Your task to perform on an android device: When is my next meeting? Image 0: 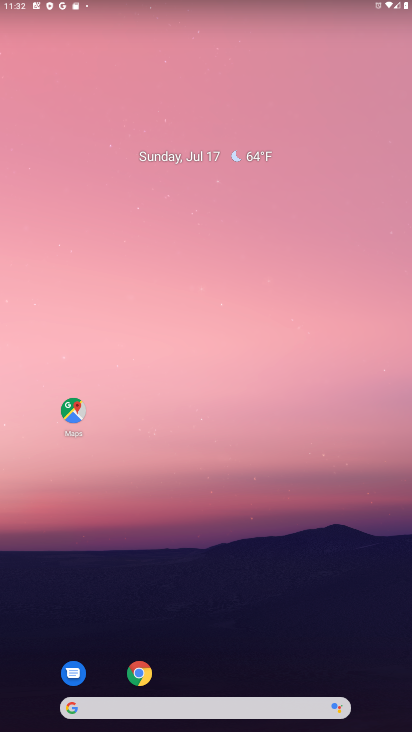
Step 0: drag from (212, 674) to (190, 213)
Your task to perform on an android device: When is my next meeting? Image 1: 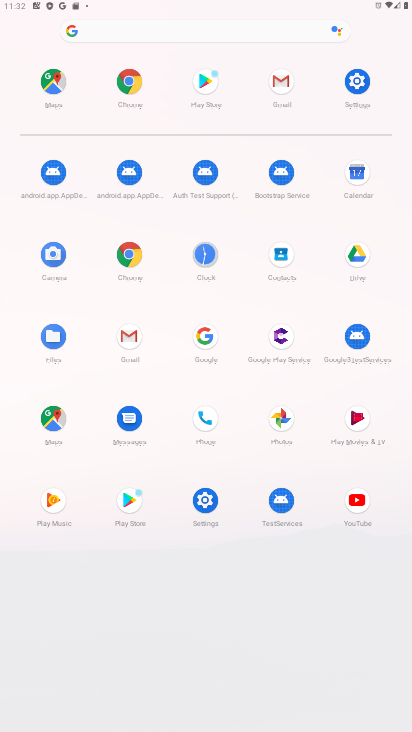
Step 1: click (358, 171)
Your task to perform on an android device: When is my next meeting? Image 2: 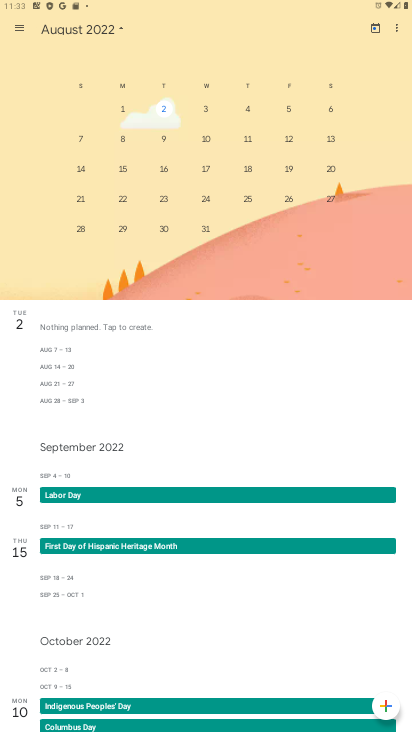
Step 2: drag from (60, 239) to (411, 211)
Your task to perform on an android device: When is my next meeting? Image 3: 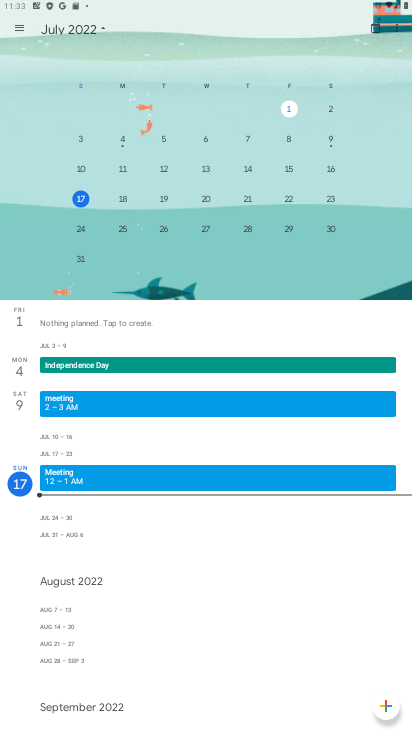
Step 3: click (165, 195)
Your task to perform on an android device: When is my next meeting? Image 4: 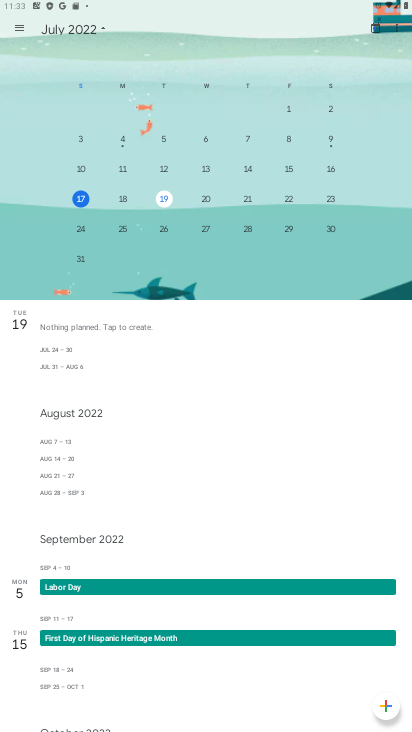
Step 4: task complete